Your task to perform on an android device: Turn off the flashlight Image 0: 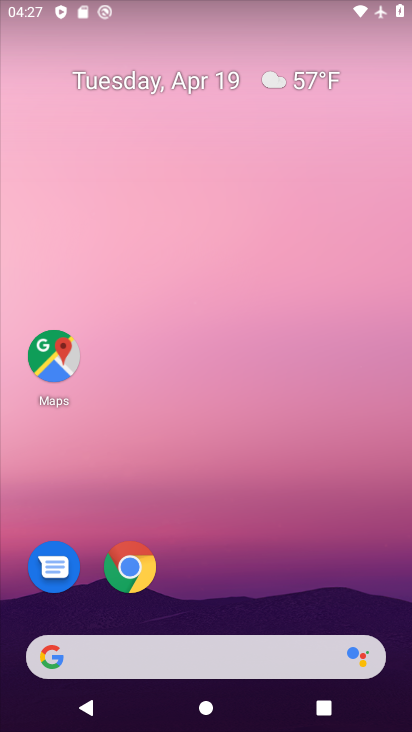
Step 0: drag from (288, 4) to (240, 401)
Your task to perform on an android device: Turn off the flashlight Image 1: 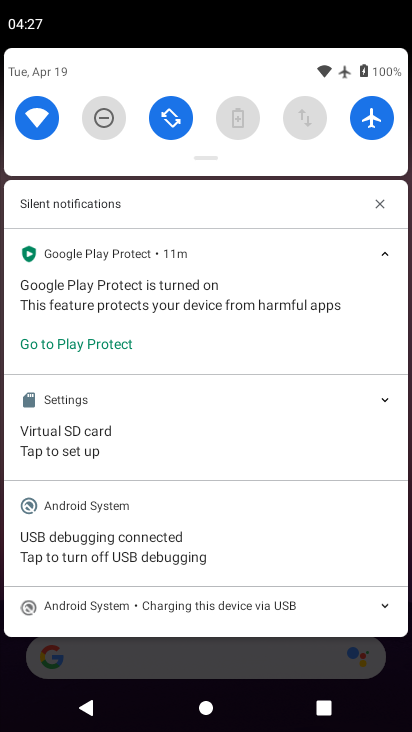
Step 1: drag from (275, 91) to (241, 417)
Your task to perform on an android device: Turn off the flashlight Image 2: 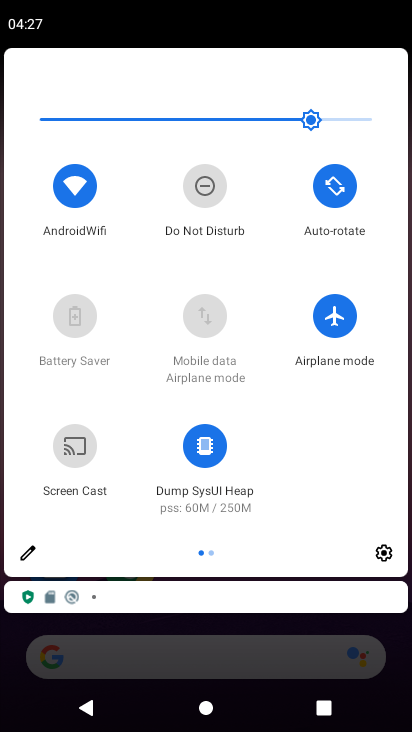
Step 2: click (30, 554)
Your task to perform on an android device: Turn off the flashlight Image 3: 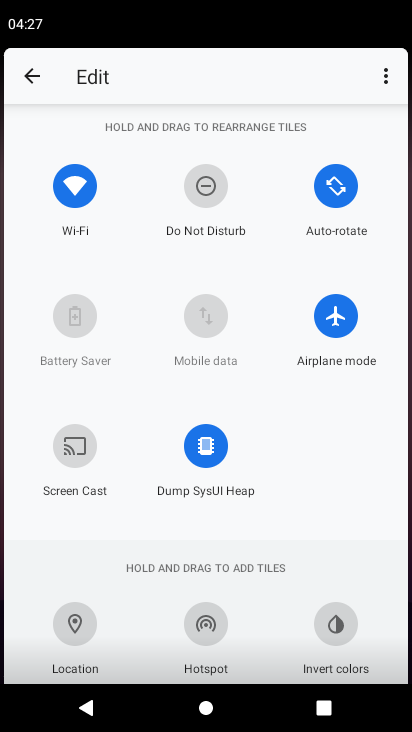
Step 3: task complete